Your task to perform on an android device: empty trash in the gmail app Image 0: 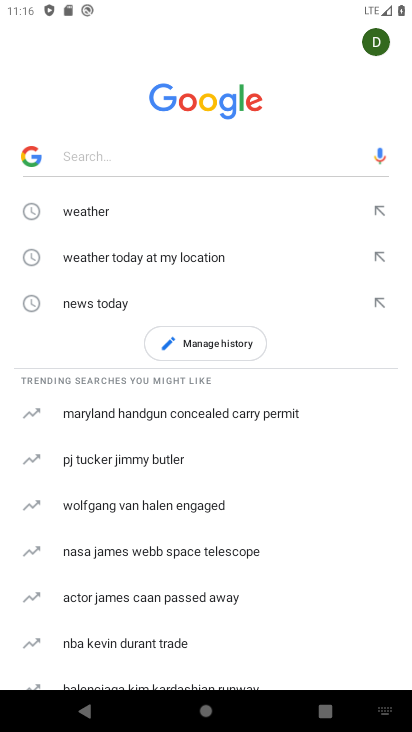
Step 0: press home button
Your task to perform on an android device: empty trash in the gmail app Image 1: 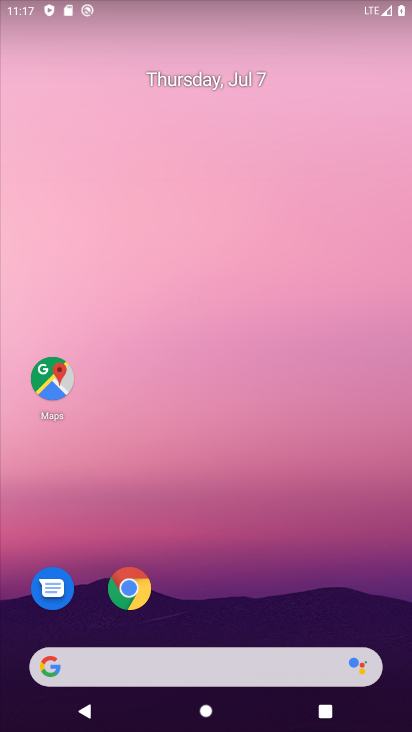
Step 1: drag from (260, 631) to (112, 30)
Your task to perform on an android device: empty trash in the gmail app Image 2: 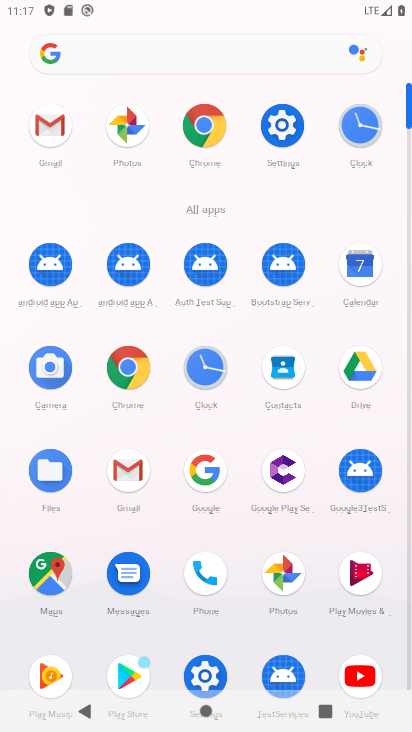
Step 2: click (49, 130)
Your task to perform on an android device: empty trash in the gmail app Image 3: 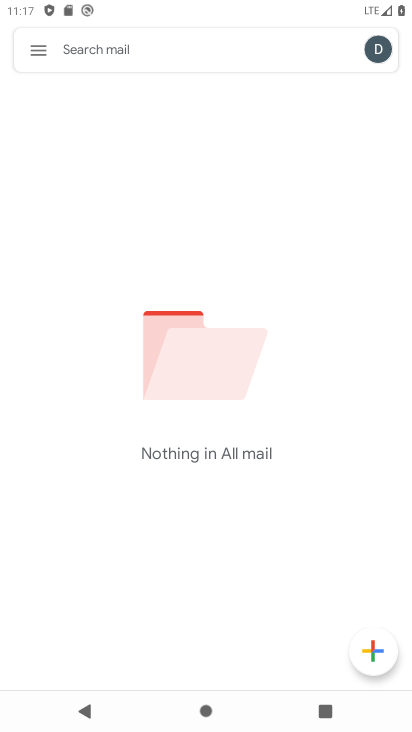
Step 3: click (46, 43)
Your task to perform on an android device: empty trash in the gmail app Image 4: 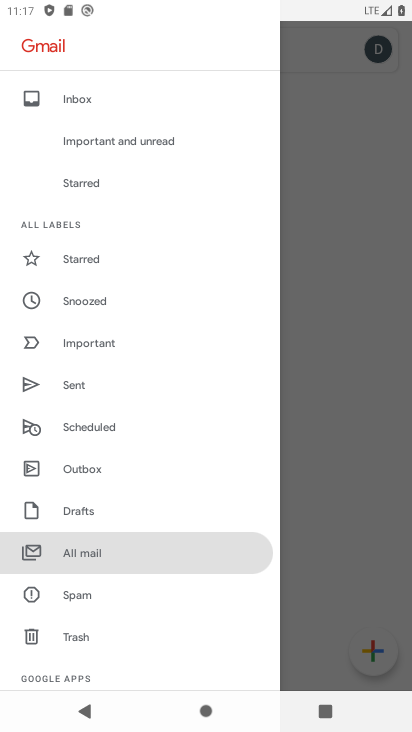
Step 4: click (73, 641)
Your task to perform on an android device: empty trash in the gmail app Image 5: 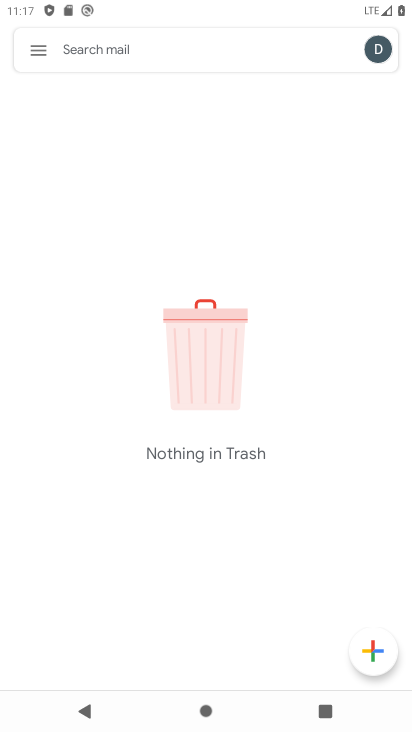
Step 5: task complete